Your task to perform on an android device: Search for seafood restaurants on Google Maps Image 0: 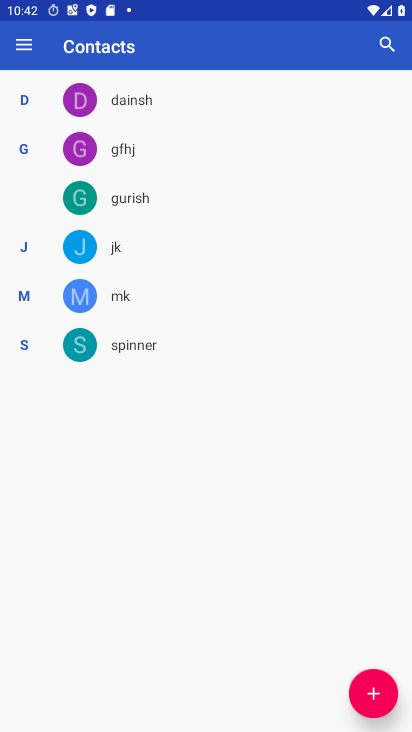
Step 0: press home button
Your task to perform on an android device: Search for seafood restaurants on Google Maps Image 1: 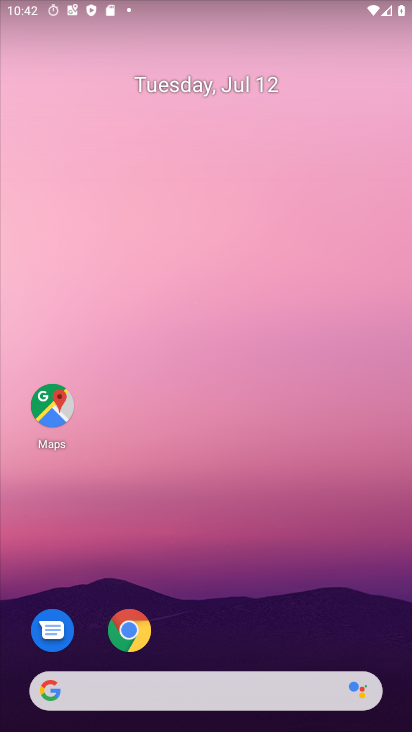
Step 1: click (55, 406)
Your task to perform on an android device: Search for seafood restaurants on Google Maps Image 2: 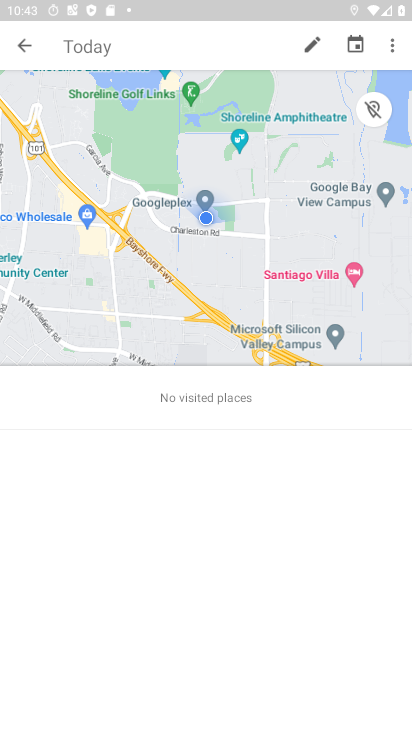
Step 2: press back button
Your task to perform on an android device: Search for seafood restaurants on Google Maps Image 3: 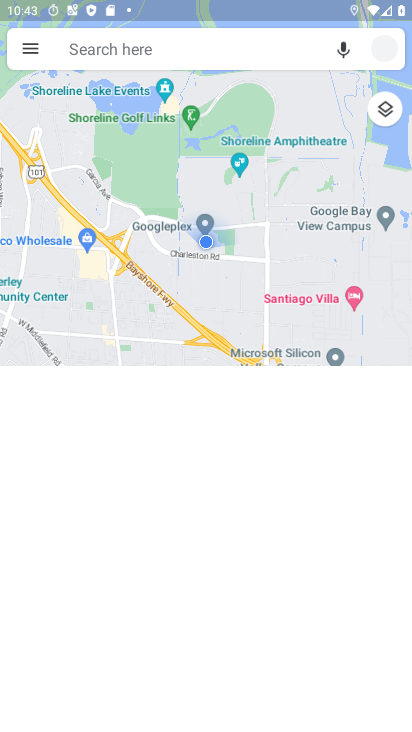
Step 3: click (160, 57)
Your task to perform on an android device: Search for seafood restaurants on Google Maps Image 4: 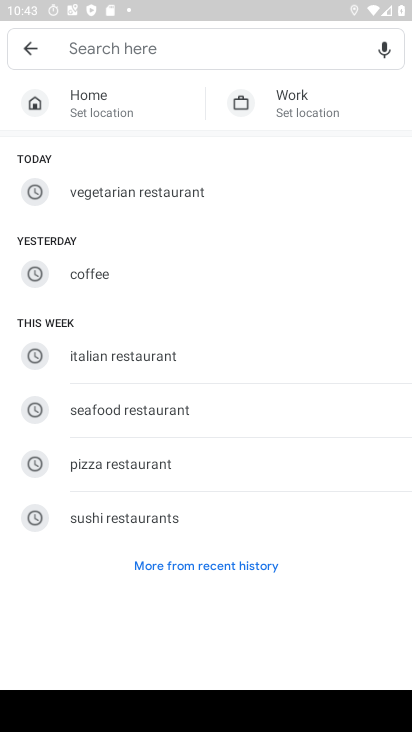
Step 4: click (157, 409)
Your task to perform on an android device: Search for seafood restaurants on Google Maps Image 5: 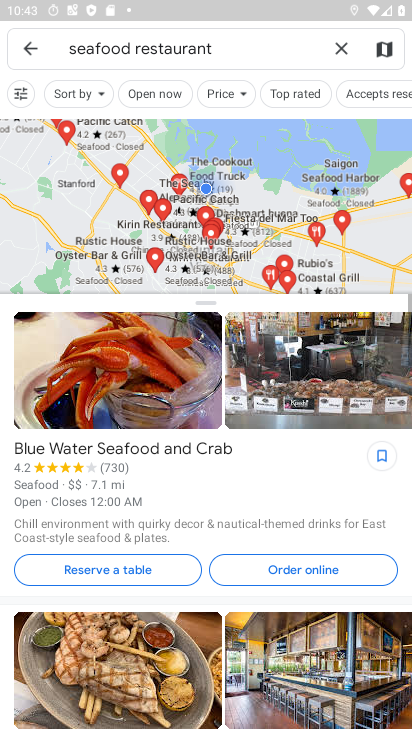
Step 5: task complete